Your task to perform on an android device: Open Youtube and go to "Your channel" Image 0: 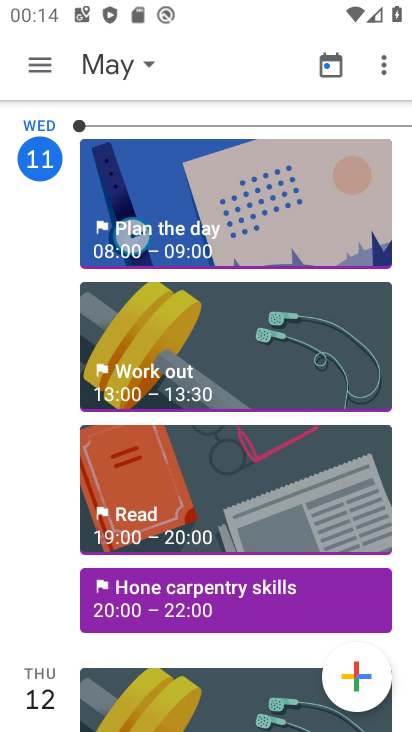
Step 0: press home button
Your task to perform on an android device: Open Youtube and go to "Your channel" Image 1: 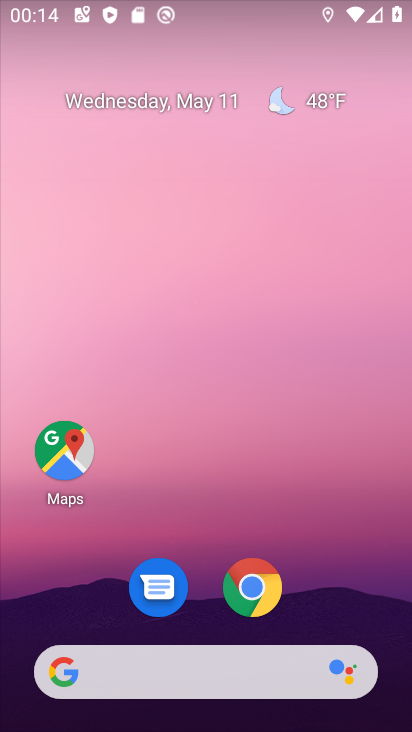
Step 1: drag from (309, 561) to (258, 241)
Your task to perform on an android device: Open Youtube and go to "Your channel" Image 2: 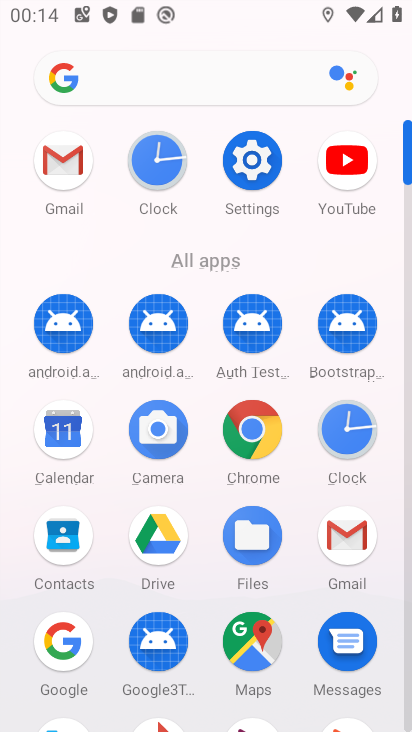
Step 2: click (327, 170)
Your task to perform on an android device: Open Youtube and go to "Your channel" Image 3: 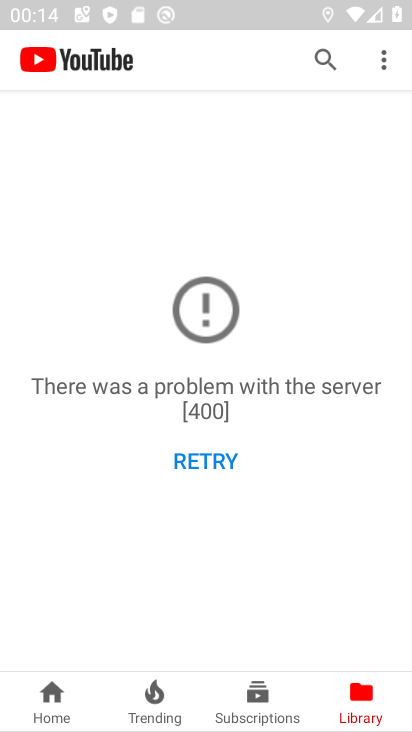
Step 3: click (355, 681)
Your task to perform on an android device: Open Youtube and go to "Your channel" Image 4: 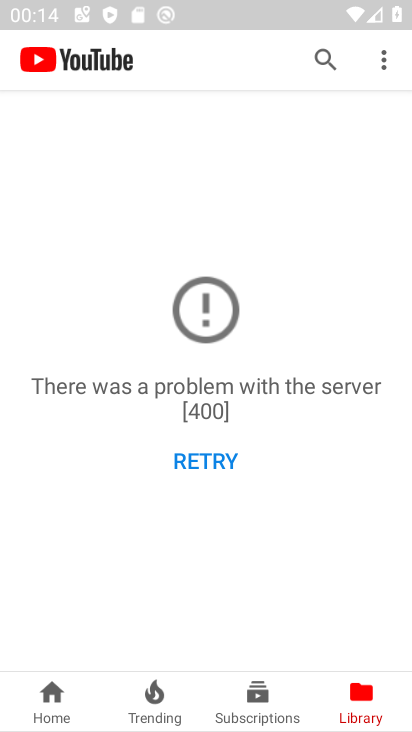
Step 4: click (50, 703)
Your task to perform on an android device: Open Youtube and go to "Your channel" Image 5: 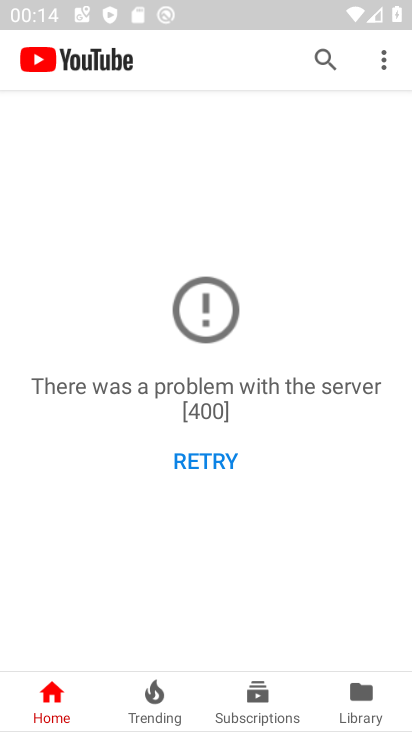
Step 5: click (380, 58)
Your task to perform on an android device: Open Youtube and go to "Your channel" Image 6: 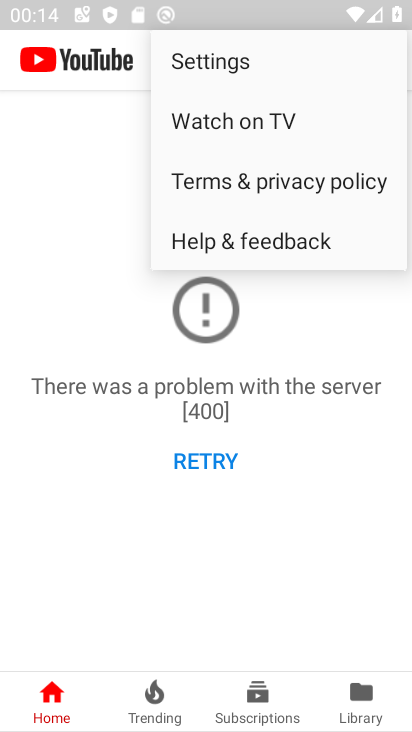
Step 6: click (229, 63)
Your task to perform on an android device: Open Youtube and go to "Your channel" Image 7: 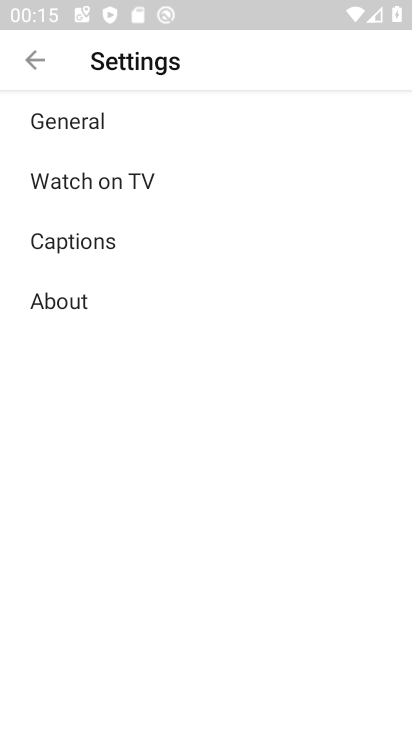
Step 7: click (145, 136)
Your task to perform on an android device: Open Youtube and go to "Your channel" Image 8: 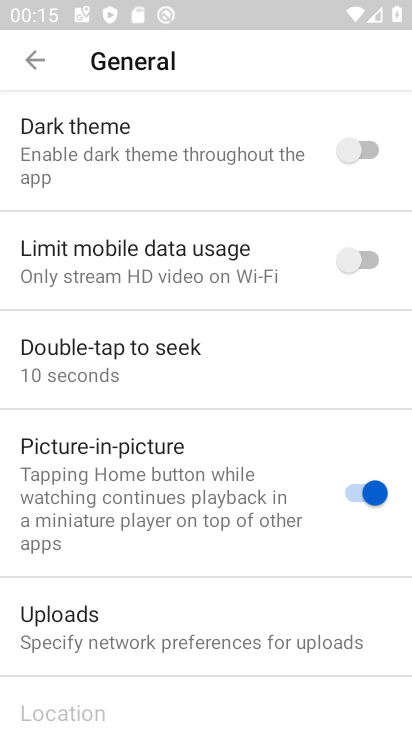
Step 8: task complete